Your task to perform on an android device: Set the phone to "Do not disturb". Image 0: 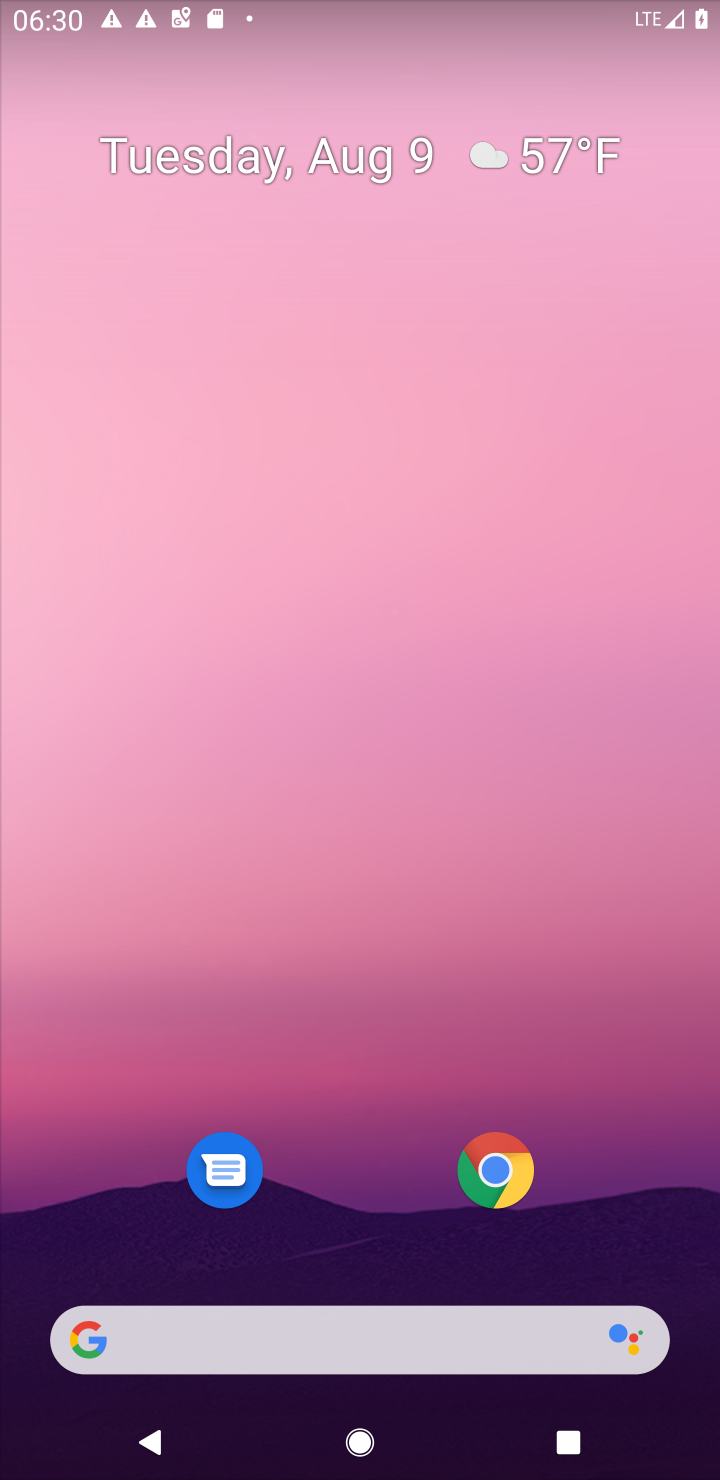
Step 0: press home button
Your task to perform on an android device: Set the phone to "Do not disturb". Image 1: 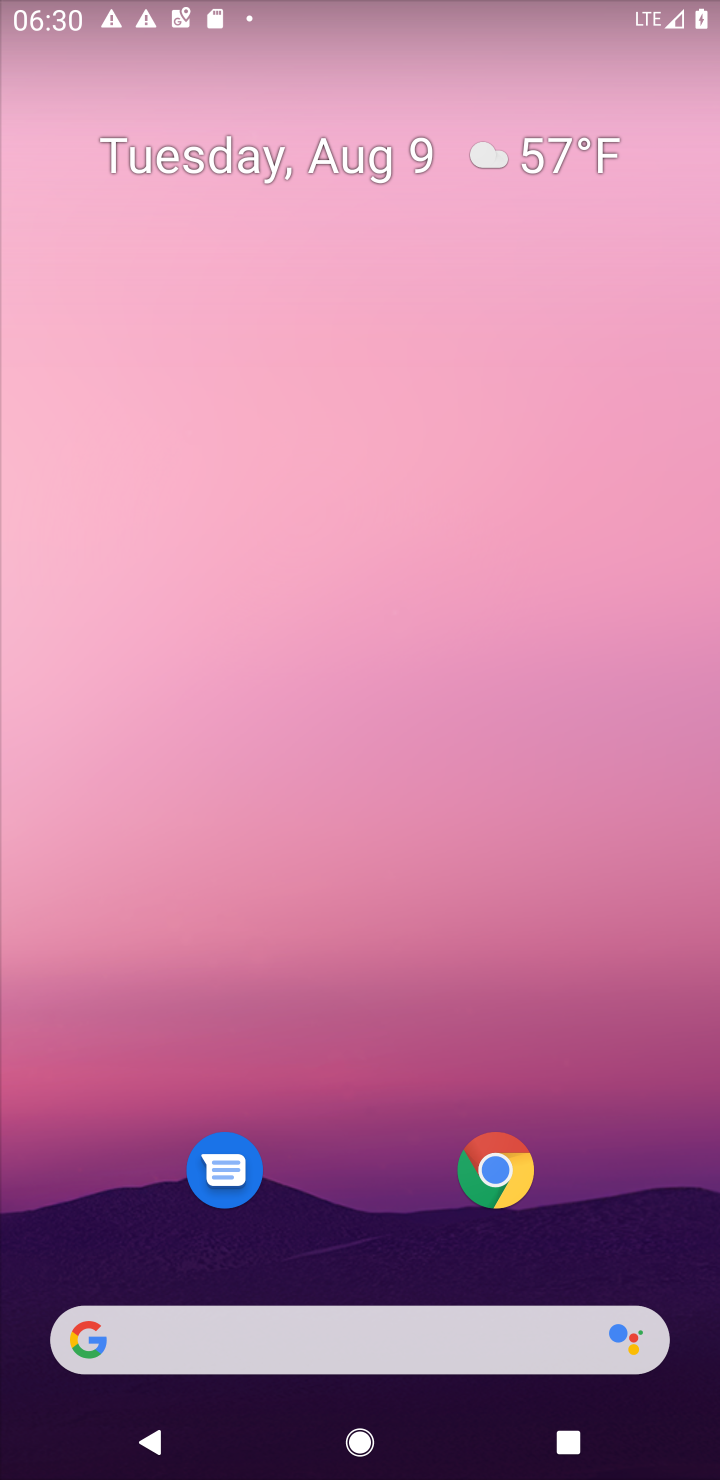
Step 1: drag from (341, 820) to (318, 1257)
Your task to perform on an android device: Set the phone to "Do not disturb". Image 2: 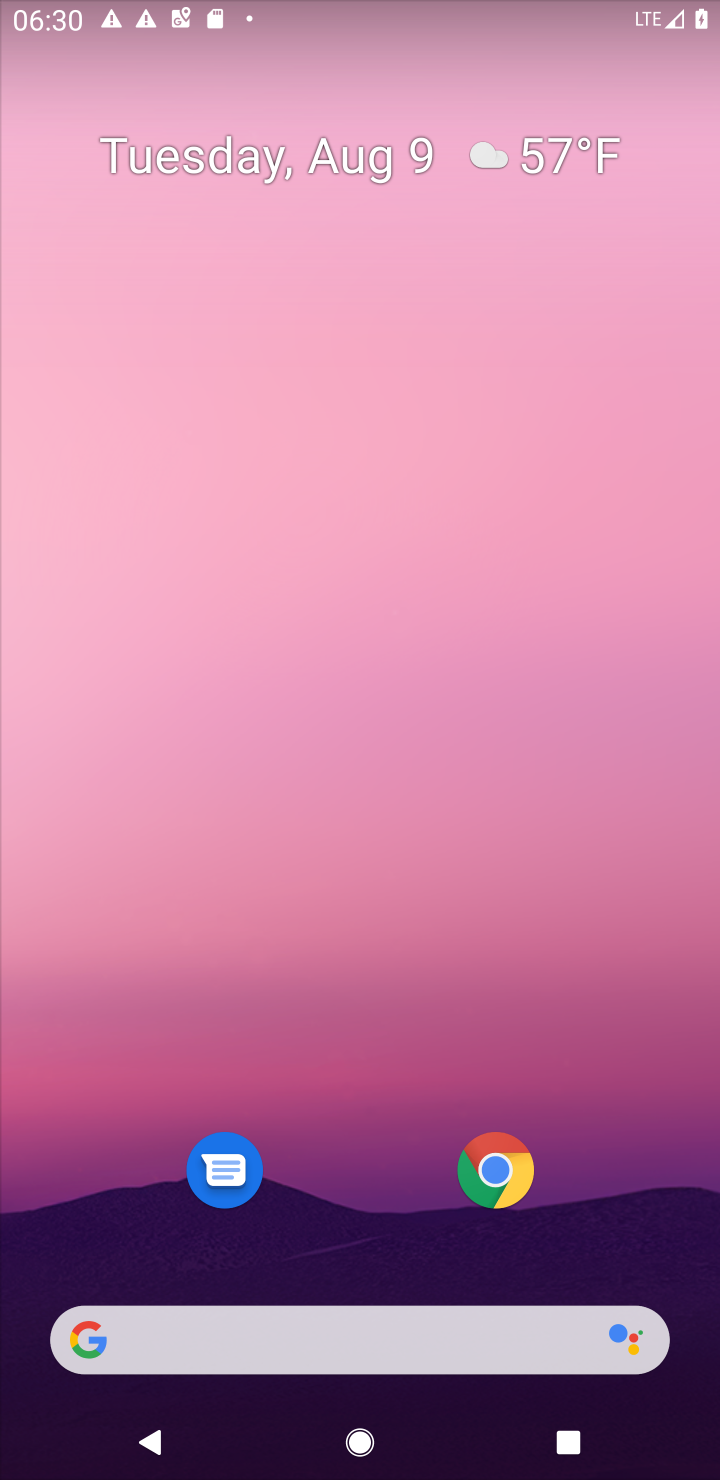
Step 2: drag from (392, 557) to (421, 1081)
Your task to perform on an android device: Set the phone to "Do not disturb". Image 3: 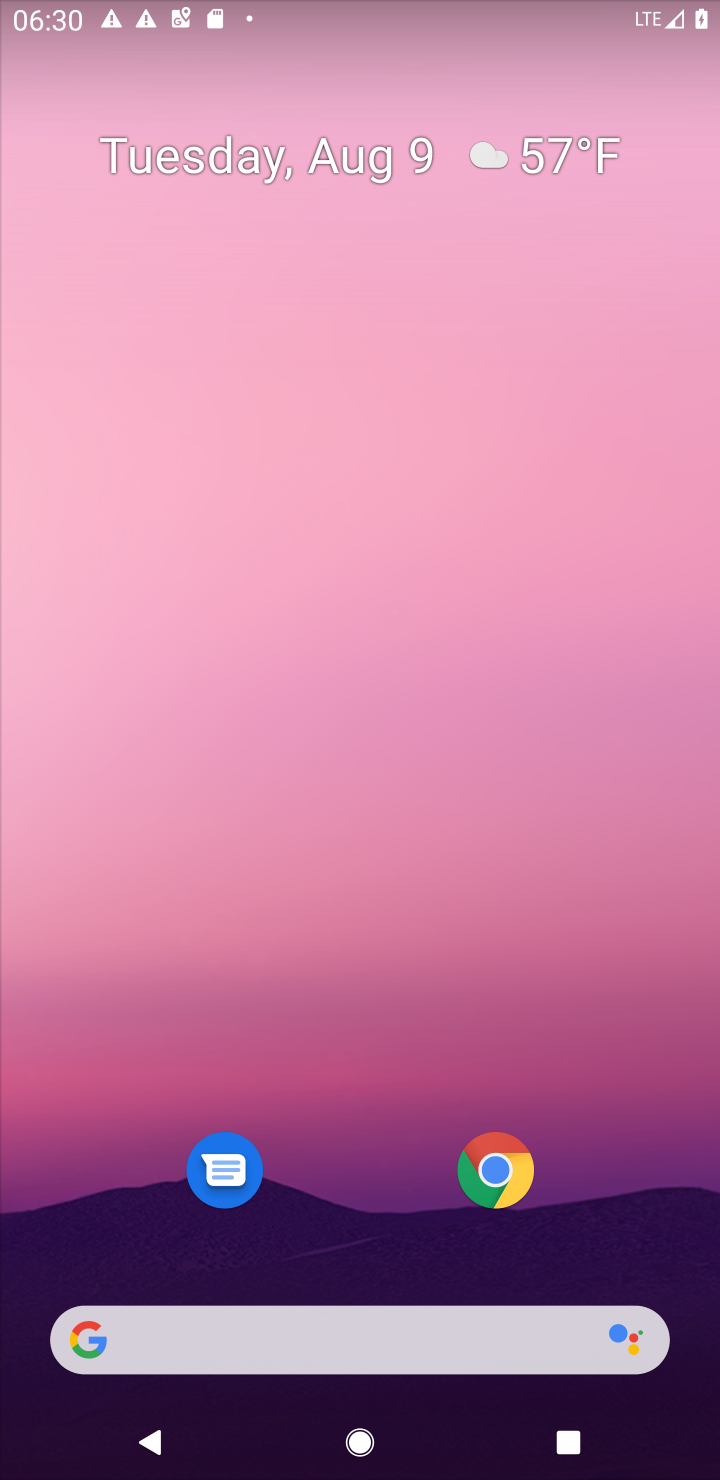
Step 3: drag from (270, 997) to (248, 1437)
Your task to perform on an android device: Set the phone to "Do not disturb". Image 4: 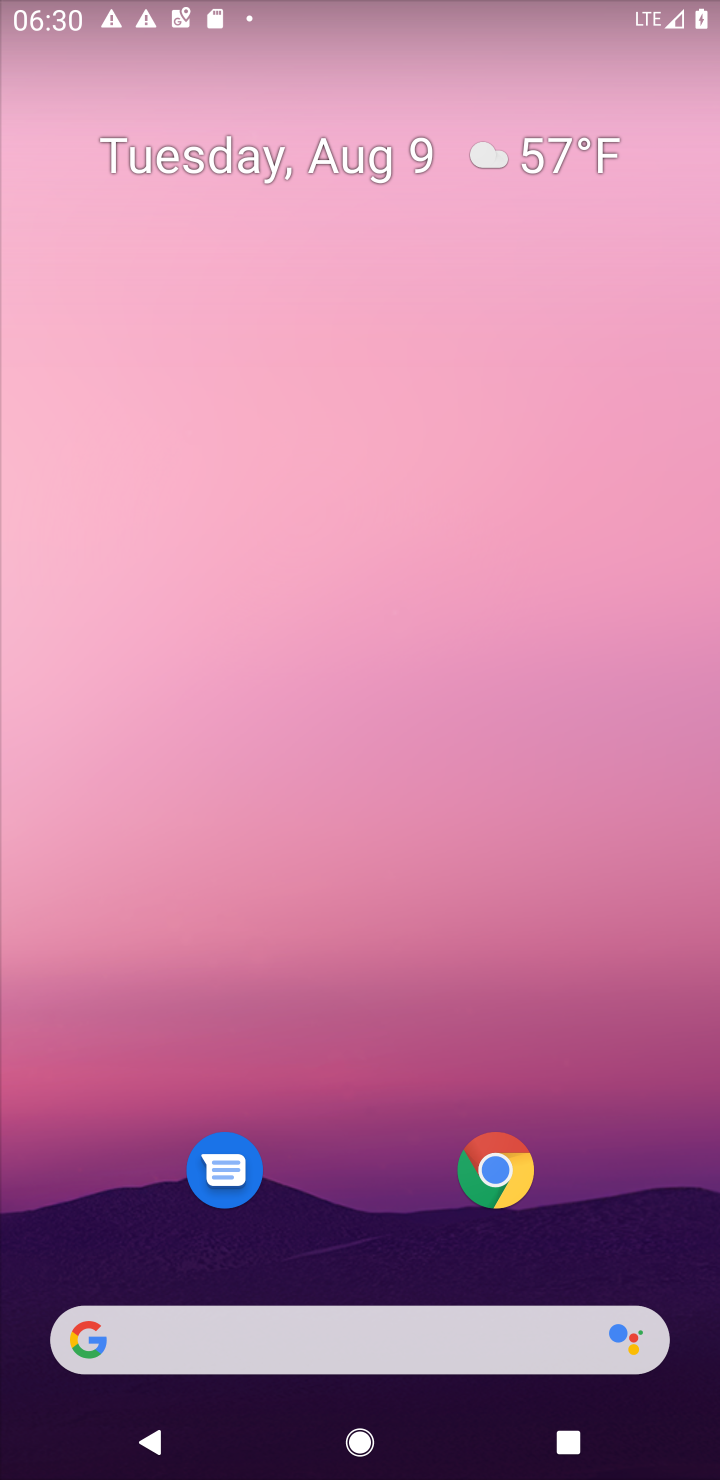
Step 4: drag from (351, 1) to (326, 1212)
Your task to perform on an android device: Set the phone to "Do not disturb". Image 5: 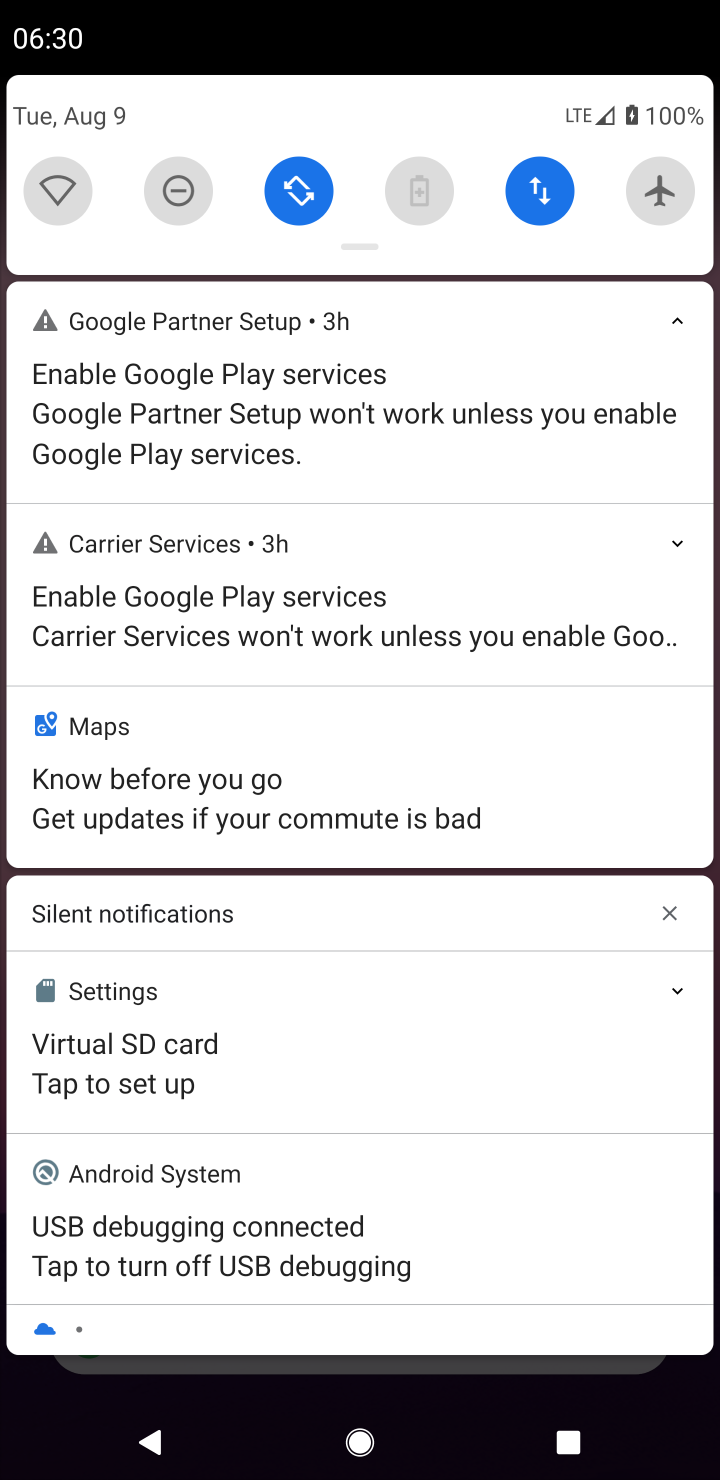
Step 5: click (169, 187)
Your task to perform on an android device: Set the phone to "Do not disturb". Image 6: 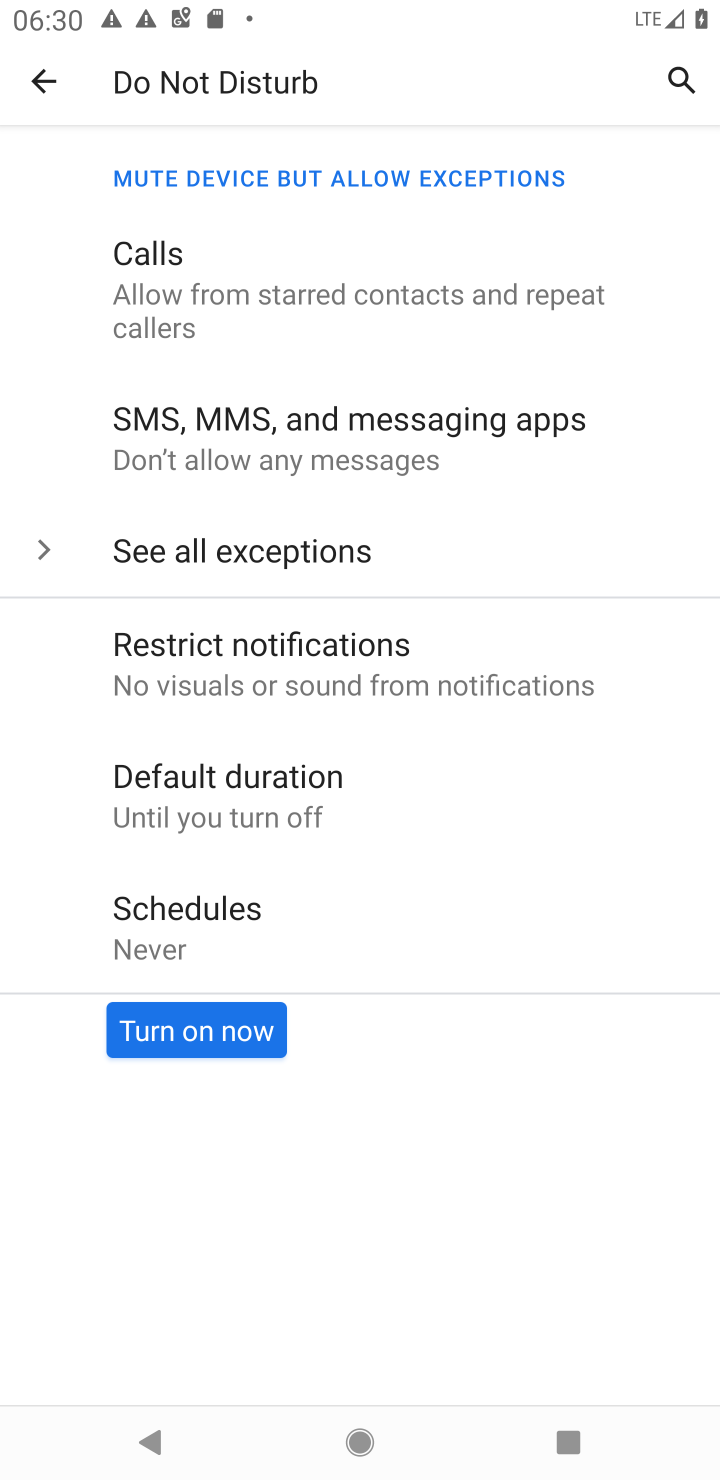
Step 6: click (171, 1028)
Your task to perform on an android device: Set the phone to "Do not disturb". Image 7: 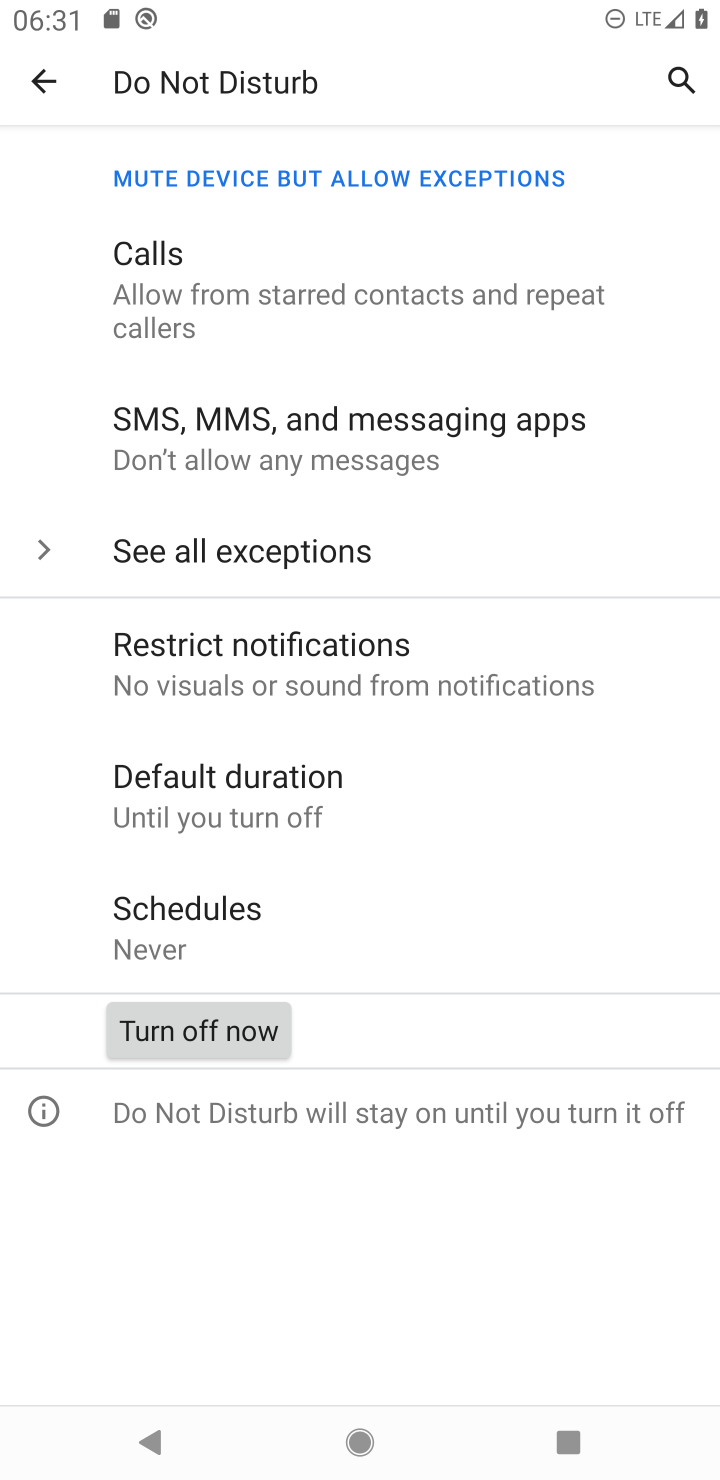
Step 7: task complete